Your task to perform on an android device: Go to Wikipedia Image 0: 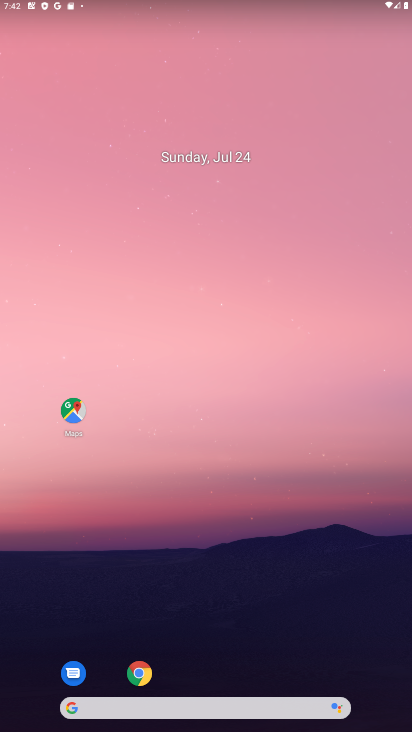
Step 0: click (90, 707)
Your task to perform on an android device: Go to Wikipedia Image 1: 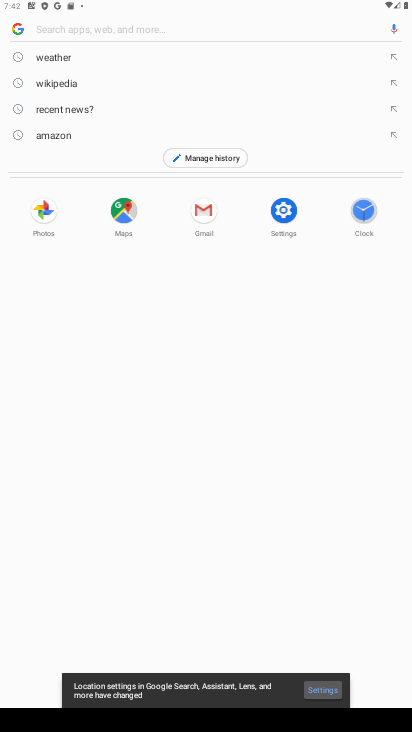
Step 1: click (56, 90)
Your task to perform on an android device: Go to Wikipedia Image 2: 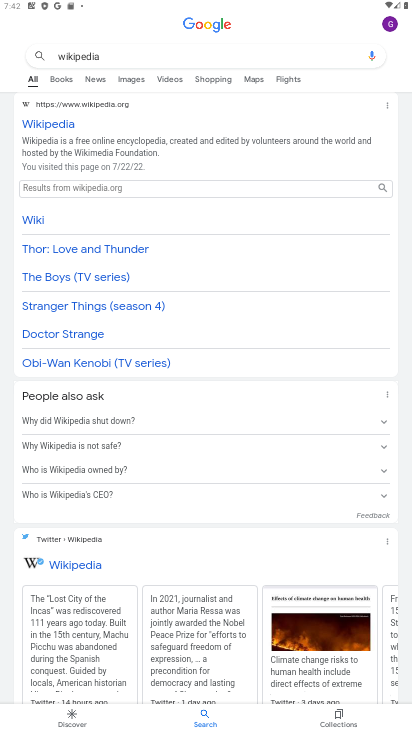
Step 2: task complete